Your task to perform on an android device: Search for flights from NYC to Mexico city Image 0: 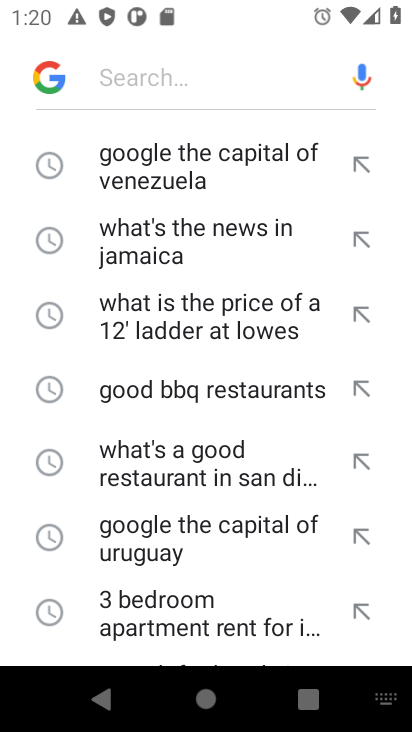
Step 0: press home button
Your task to perform on an android device: Search for flights from NYC to Mexico city Image 1: 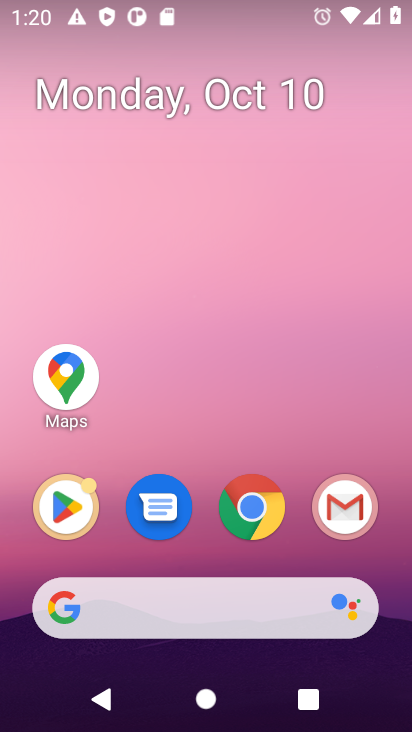
Step 1: click (190, 605)
Your task to perform on an android device: Search for flights from NYC to Mexico city Image 2: 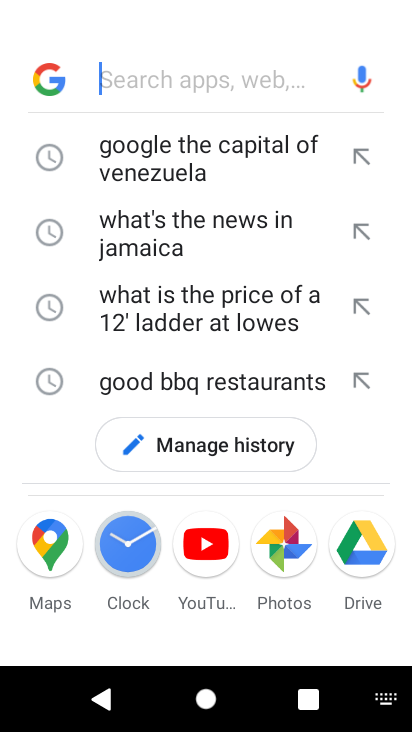
Step 2: type "flights from NYC to Mexico city"
Your task to perform on an android device: Search for flights from NYC to Mexico city Image 3: 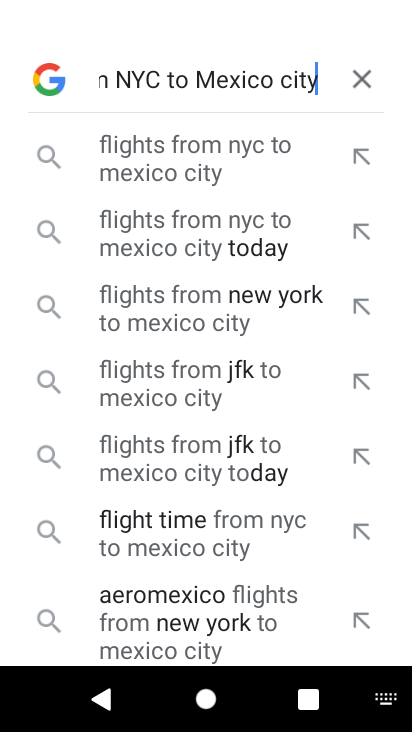
Step 3: press enter
Your task to perform on an android device: Search for flights from NYC to Mexico city Image 4: 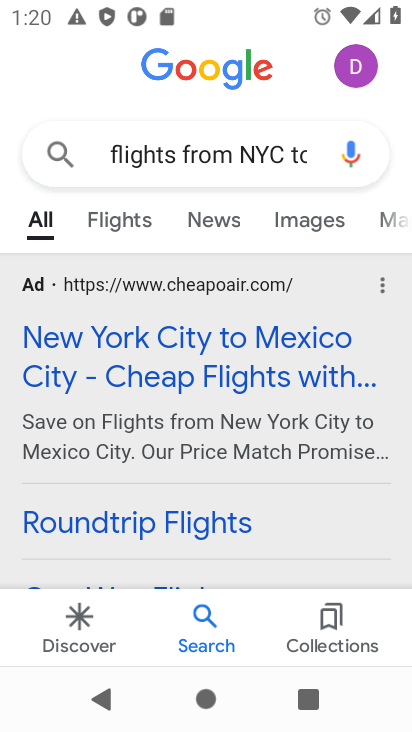
Step 4: drag from (288, 485) to (312, 277)
Your task to perform on an android device: Search for flights from NYC to Mexico city Image 5: 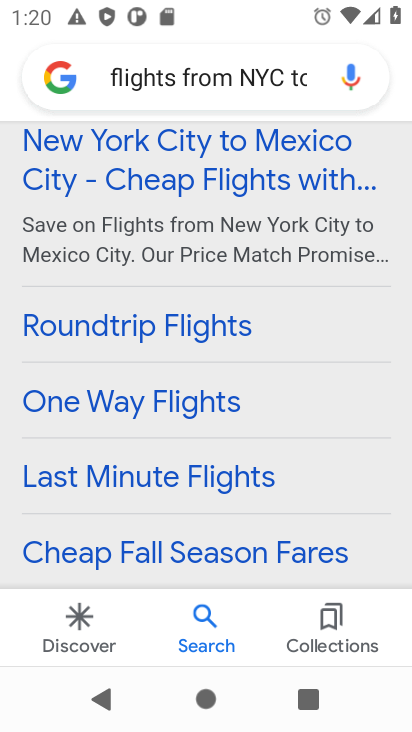
Step 5: drag from (296, 378) to (319, 215)
Your task to perform on an android device: Search for flights from NYC to Mexico city Image 6: 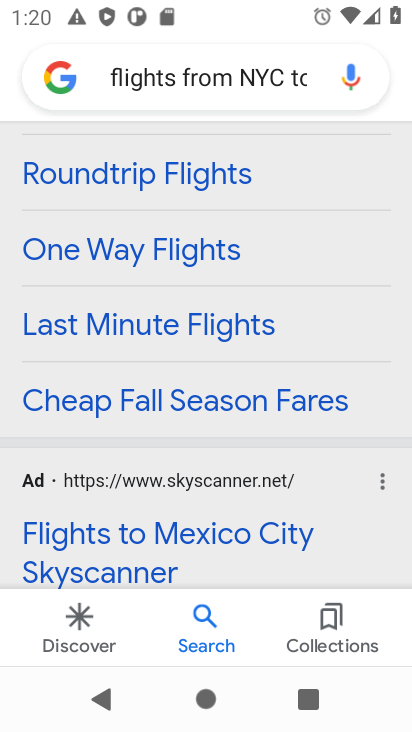
Step 6: drag from (302, 536) to (294, 220)
Your task to perform on an android device: Search for flights from NYC to Mexico city Image 7: 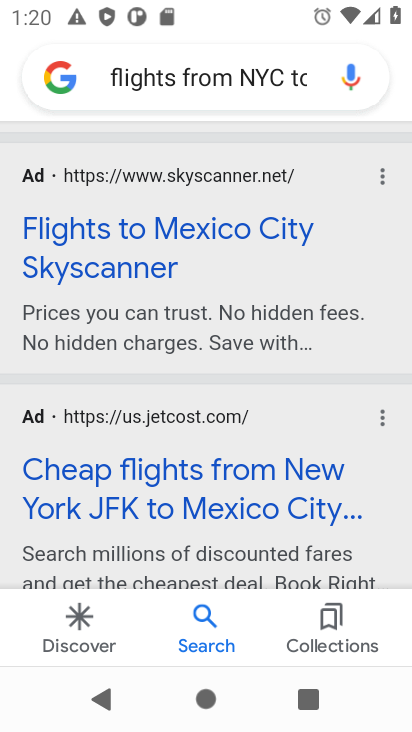
Step 7: drag from (280, 537) to (301, 191)
Your task to perform on an android device: Search for flights from NYC to Mexico city Image 8: 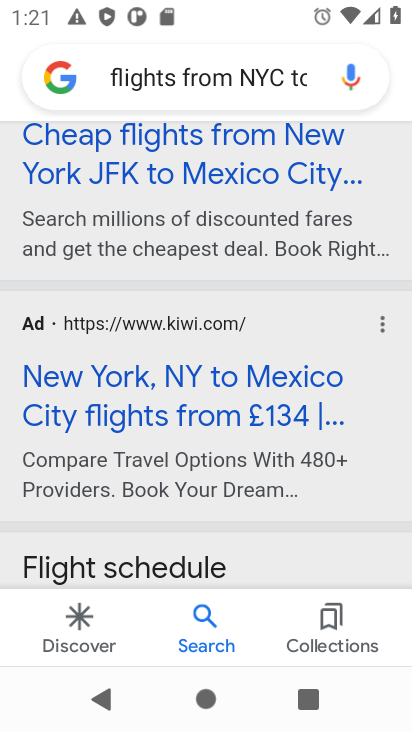
Step 8: drag from (256, 495) to (277, 183)
Your task to perform on an android device: Search for flights from NYC to Mexico city Image 9: 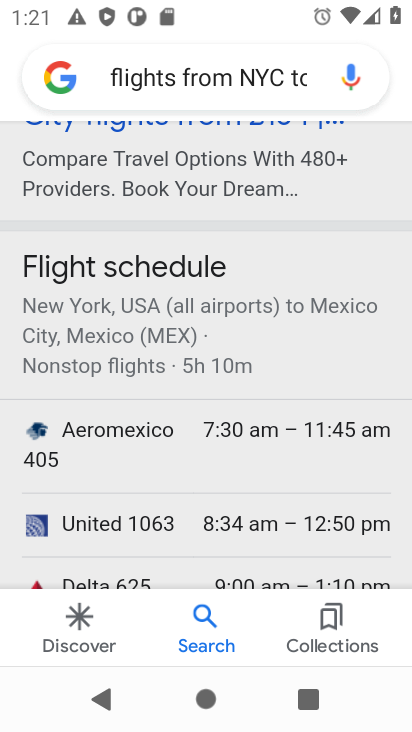
Step 9: drag from (272, 490) to (271, 290)
Your task to perform on an android device: Search for flights from NYC to Mexico city Image 10: 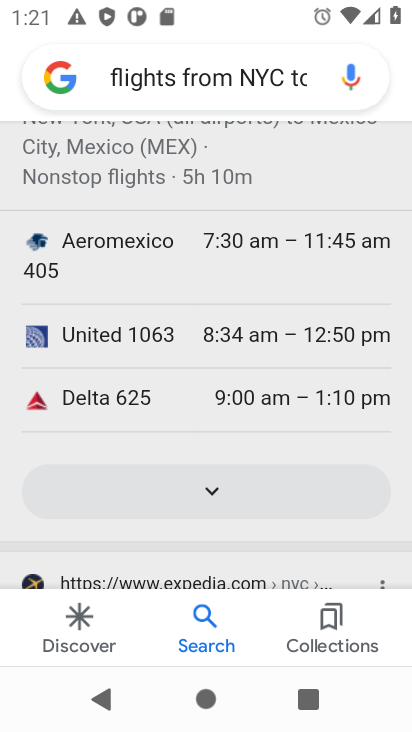
Step 10: click (218, 494)
Your task to perform on an android device: Search for flights from NYC to Mexico city Image 11: 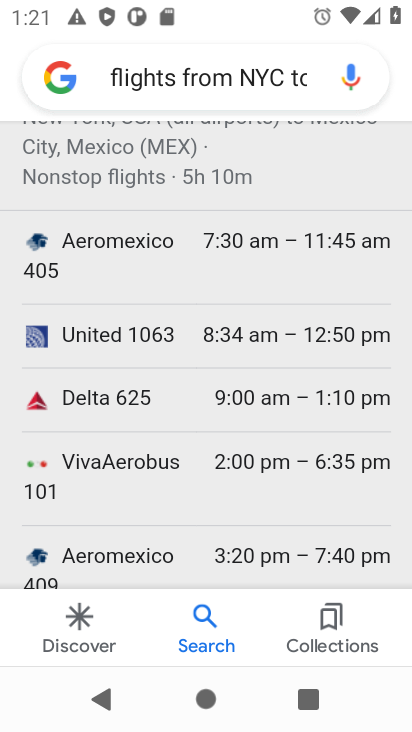
Step 11: task complete